Your task to perform on an android device: turn on bluetooth scan Image 0: 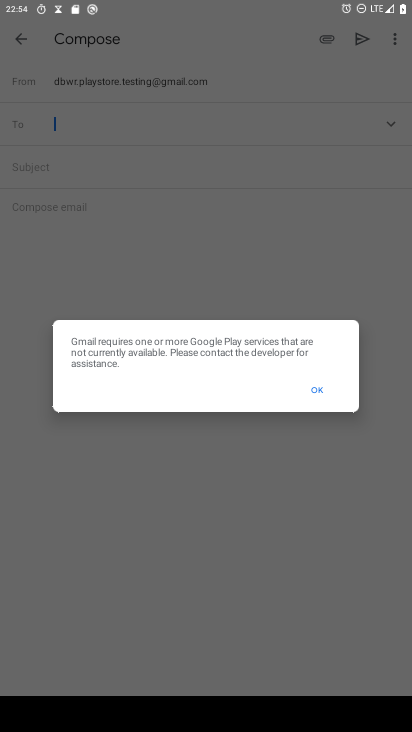
Step 0: press home button
Your task to perform on an android device: turn on bluetooth scan Image 1: 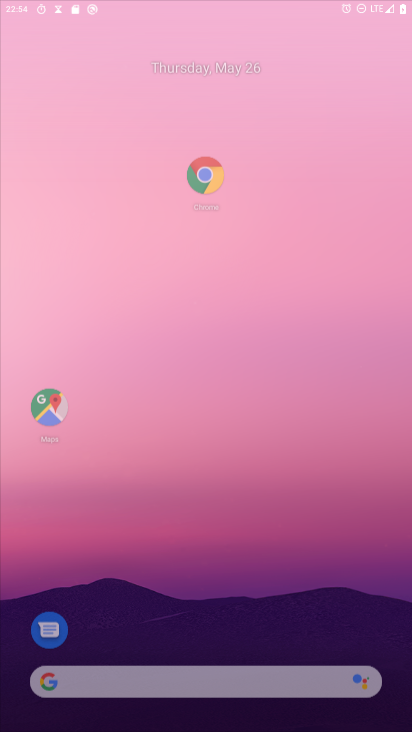
Step 1: drag from (164, 534) to (254, 85)
Your task to perform on an android device: turn on bluetooth scan Image 2: 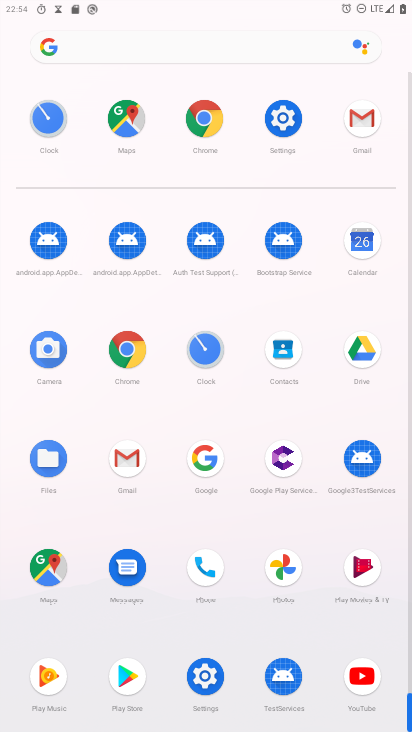
Step 2: click (271, 128)
Your task to perform on an android device: turn on bluetooth scan Image 3: 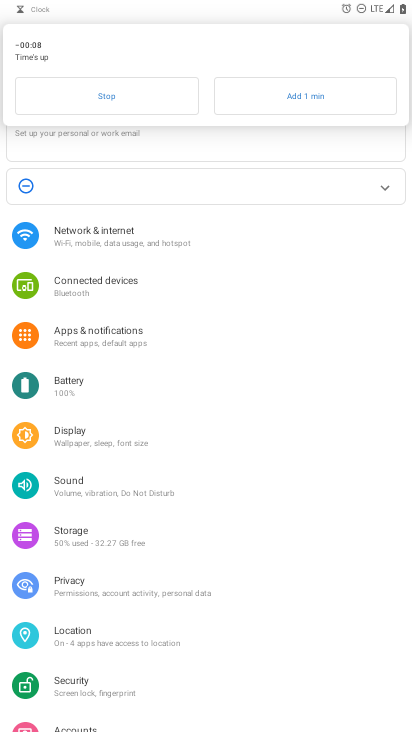
Step 3: drag from (208, 620) to (271, 14)
Your task to perform on an android device: turn on bluetooth scan Image 4: 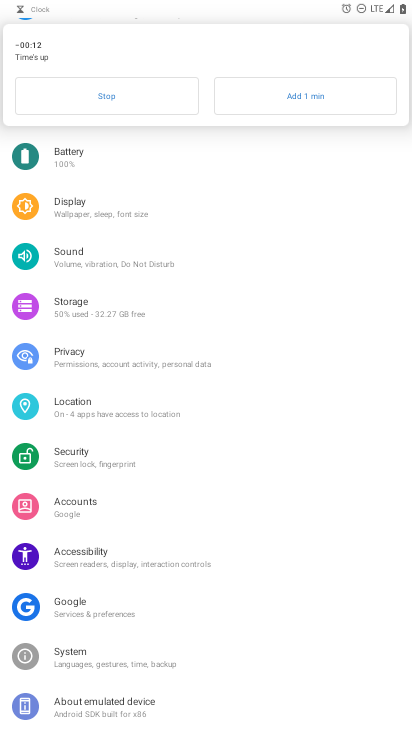
Step 4: drag from (167, 598) to (252, 99)
Your task to perform on an android device: turn on bluetooth scan Image 5: 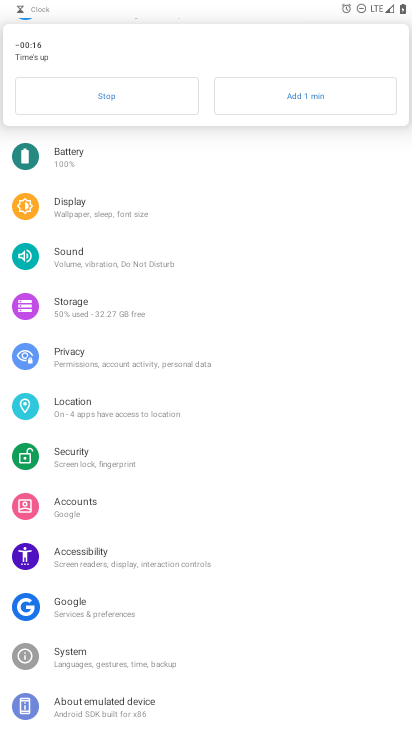
Step 5: drag from (110, 252) to (288, 488)
Your task to perform on an android device: turn on bluetooth scan Image 6: 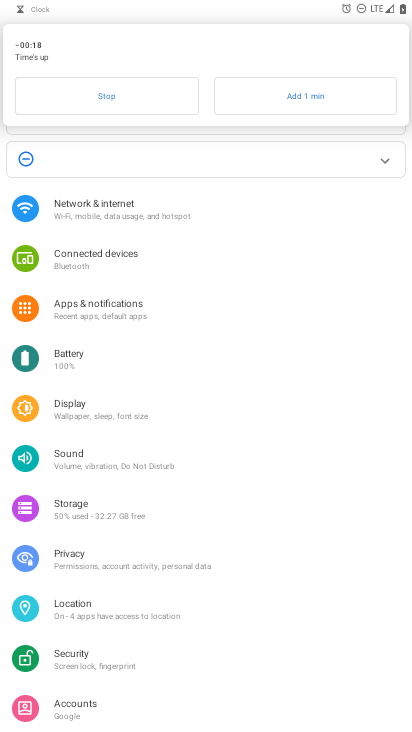
Step 6: click (142, 99)
Your task to perform on an android device: turn on bluetooth scan Image 7: 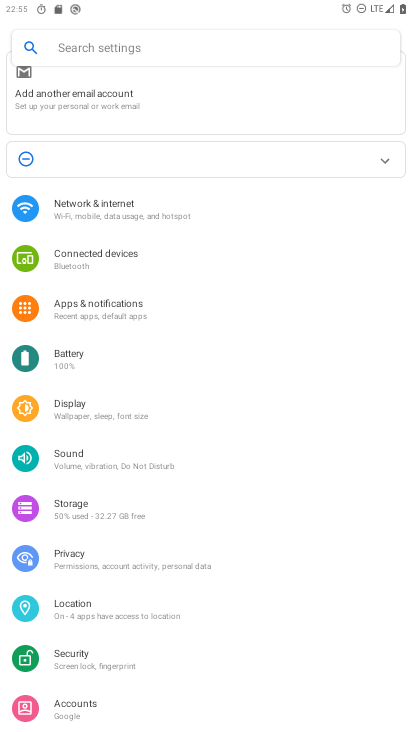
Step 7: click (111, 614)
Your task to perform on an android device: turn on bluetooth scan Image 8: 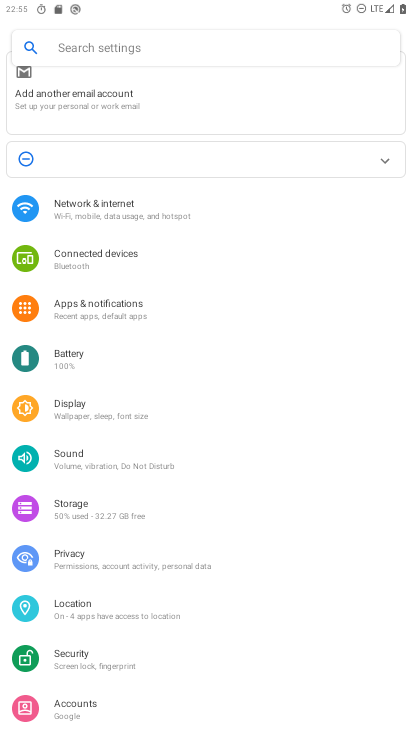
Step 8: click (112, 614)
Your task to perform on an android device: turn on bluetooth scan Image 9: 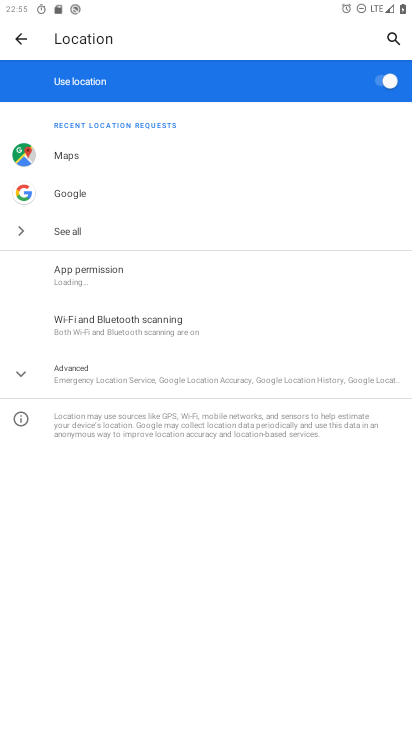
Step 9: click (67, 370)
Your task to perform on an android device: turn on bluetooth scan Image 10: 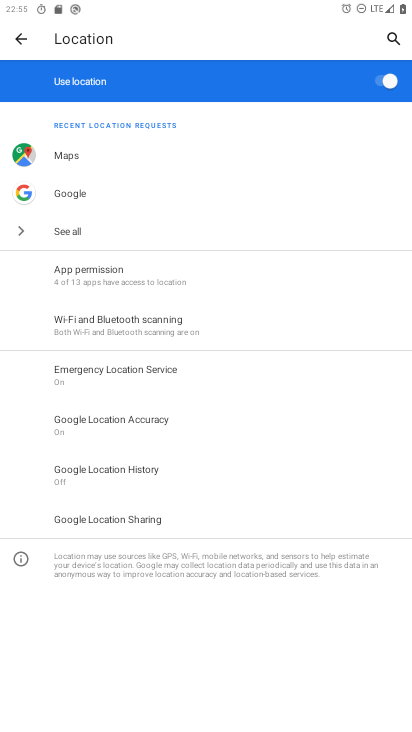
Step 10: click (126, 321)
Your task to perform on an android device: turn on bluetooth scan Image 11: 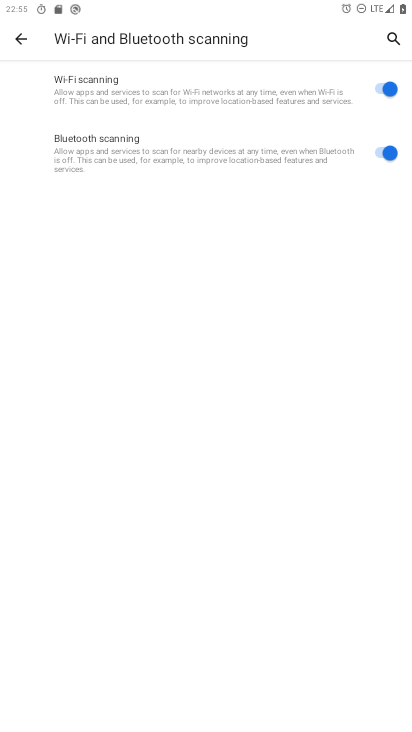
Step 11: task complete